Your task to perform on an android device: turn off location history Image 0: 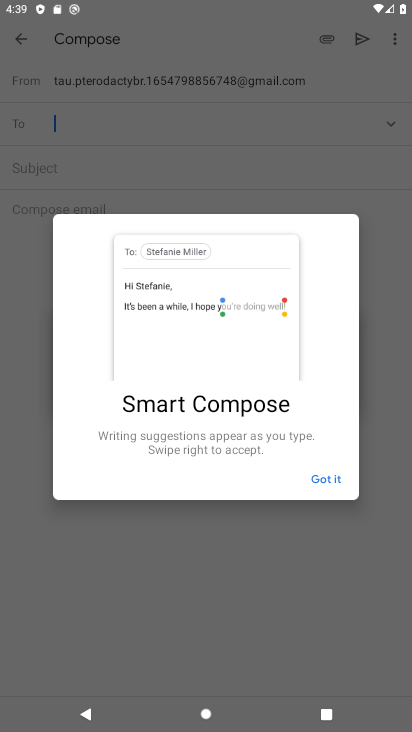
Step 0: click (176, 684)
Your task to perform on an android device: turn off location history Image 1: 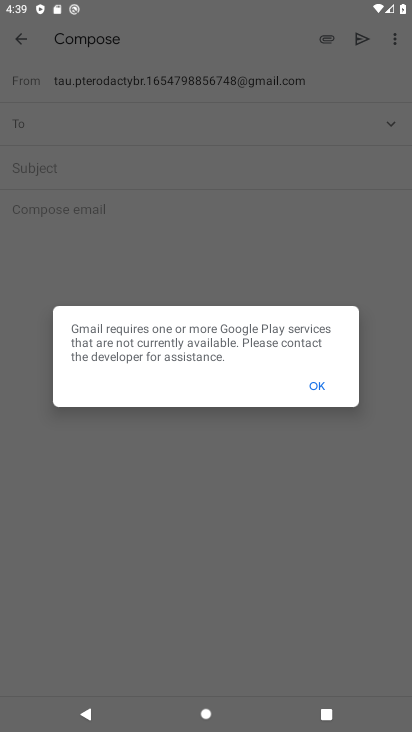
Step 1: drag from (193, 5) to (191, 469)
Your task to perform on an android device: turn off location history Image 2: 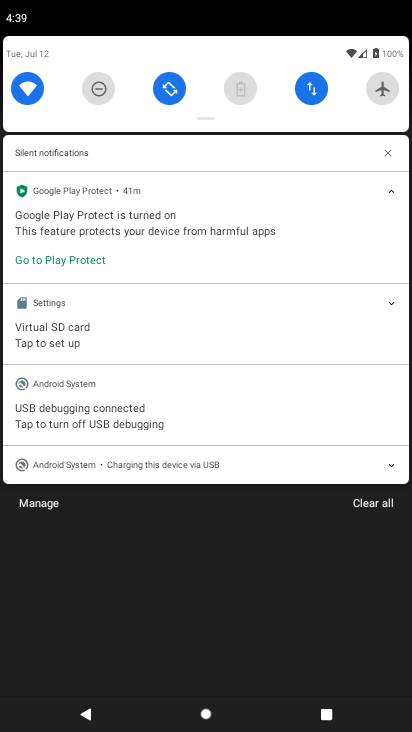
Step 2: drag from (220, 57) to (199, 612)
Your task to perform on an android device: turn off location history Image 3: 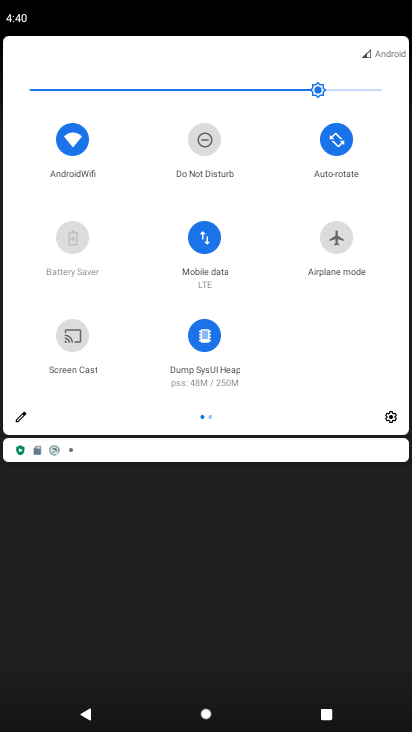
Step 3: click (396, 412)
Your task to perform on an android device: turn off location history Image 4: 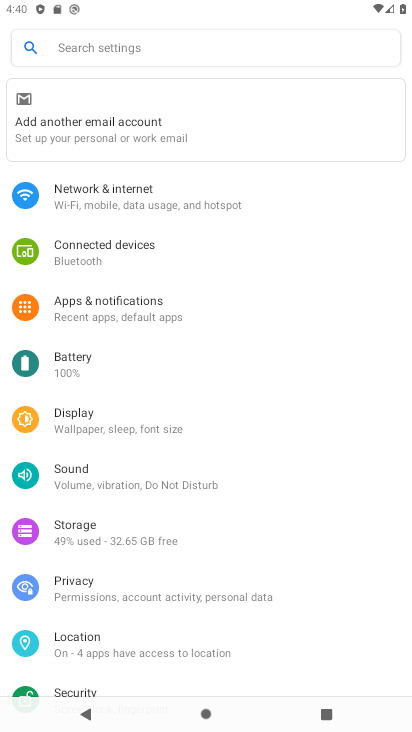
Step 4: click (102, 639)
Your task to perform on an android device: turn off location history Image 5: 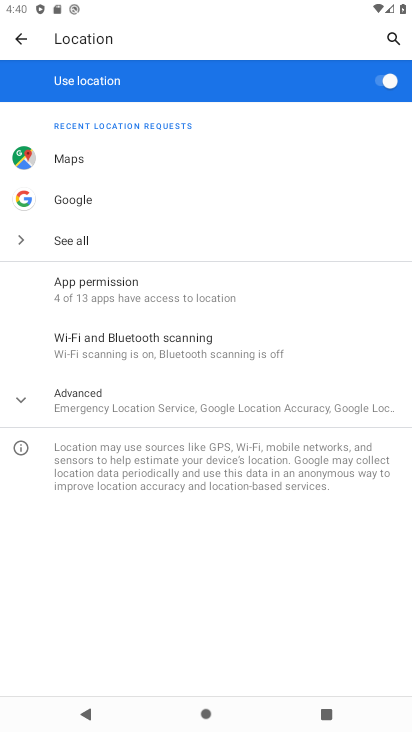
Step 5: click (81, 411)
Your task to perform on an android device: turn off location history Image 6: 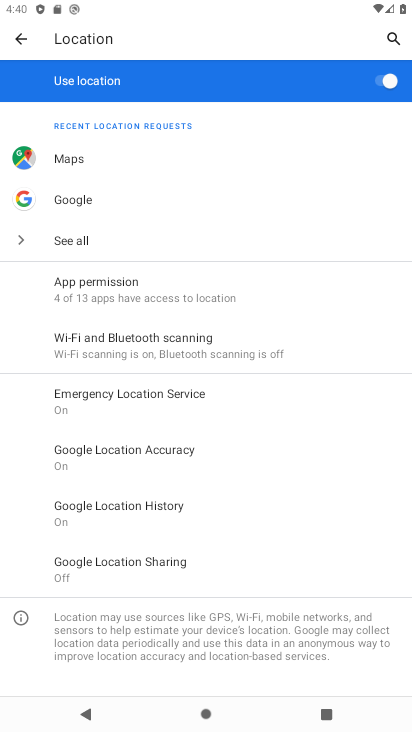
Step 6: click (194, 514)
Your task to perform on an android device: turn off location history Image 7: 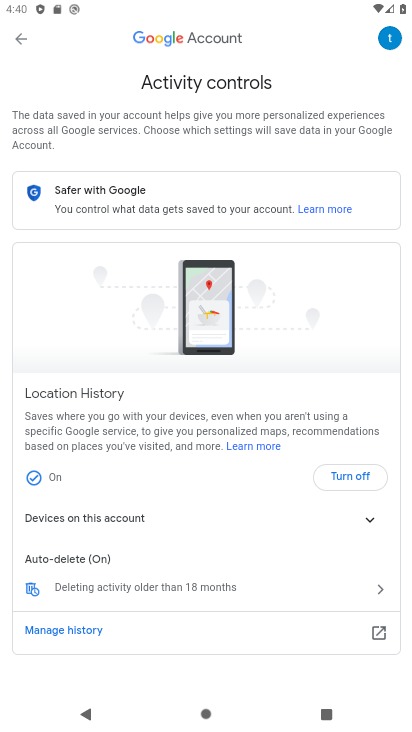
Step 7: click (350, 474)
Your task to perform on an android device: turn off location history Image 8: 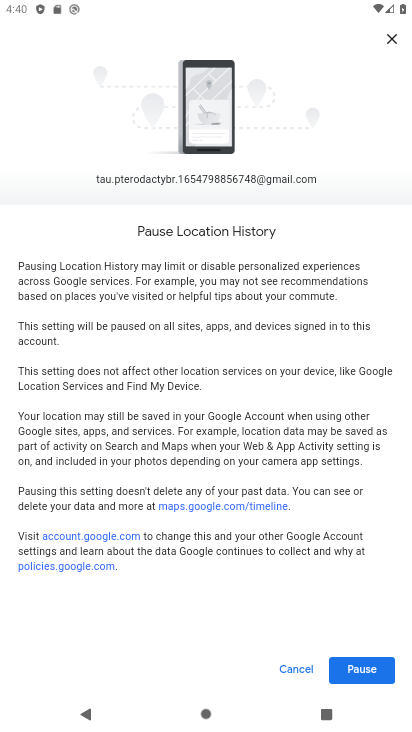
Step 8: click (360, 676)
Your task to perform on an android device: turn off location history Image 9: 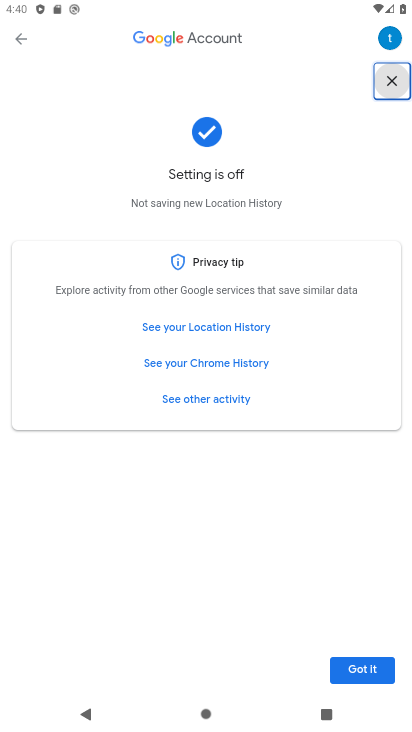
Step 9: task complete